Your task to perform on an android device: Open the phone app and click the voicemail tab. Image 0: 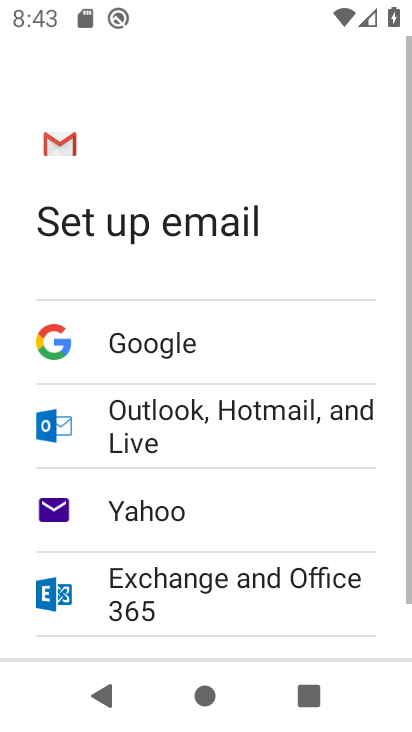
Step 0: press home button
Your task to perform on an android device: Open the phone app and click the voicemail tab. Image 1: 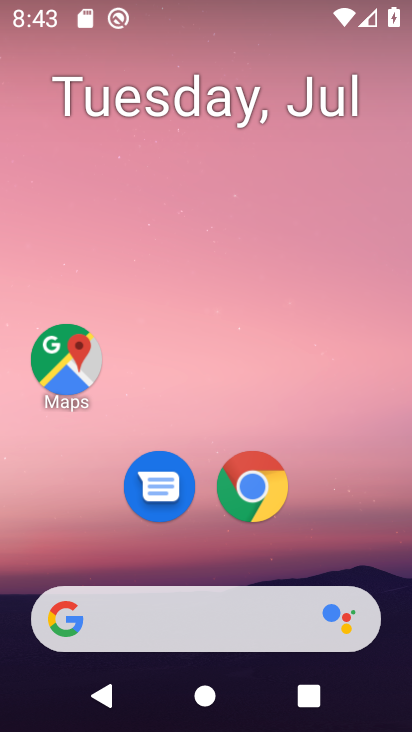
Step 1: drag from (254, 623) to (256, 16)
Your task to perform on an android device: Open the phone app and click the voicemail tab. Image 2: 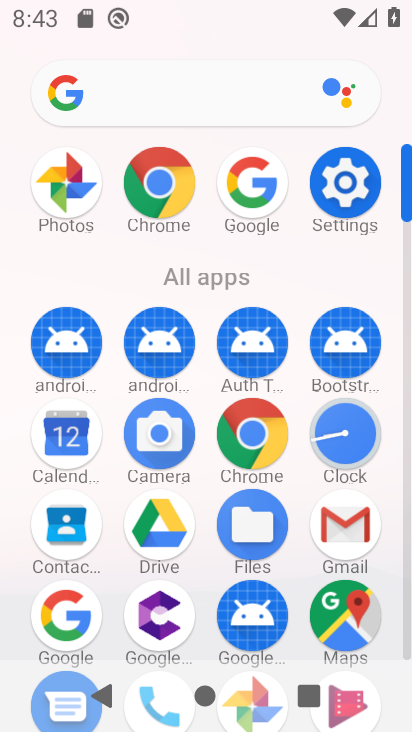
Step 2: drag from (296, 520) to (263, 210)
Your task to perform on an android device: Open the phone app and click the voicemail tab. Image 3: 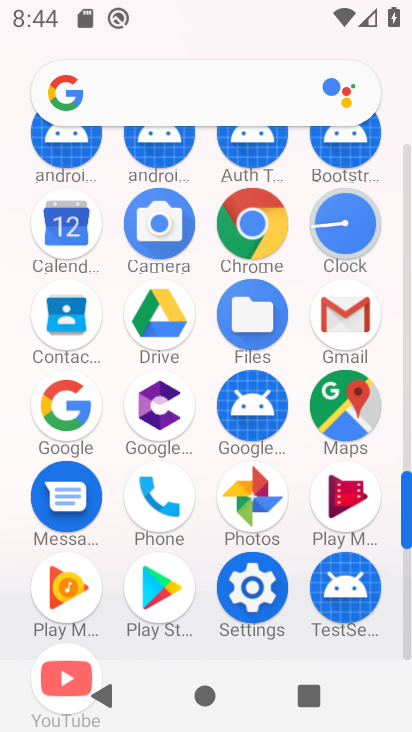
Step 3: click (152, 501)
Your task to perform on an android device: Open the phone app and click the voicemail tab. Image 4: 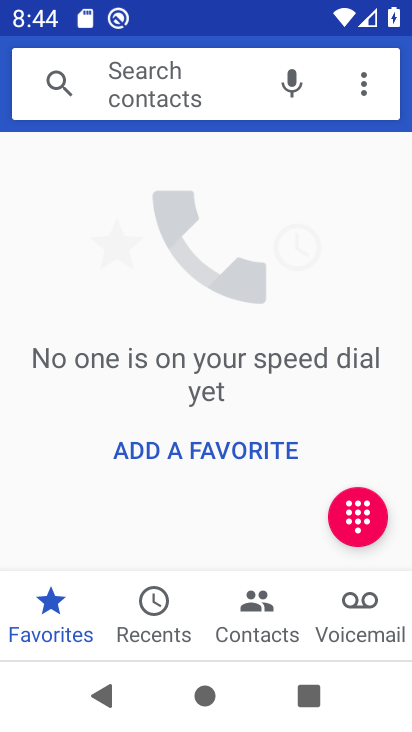
Step 4: click (366, 622)
Your task to perform on an android device: Open the phone app and click the voicemail tab. Image 5: 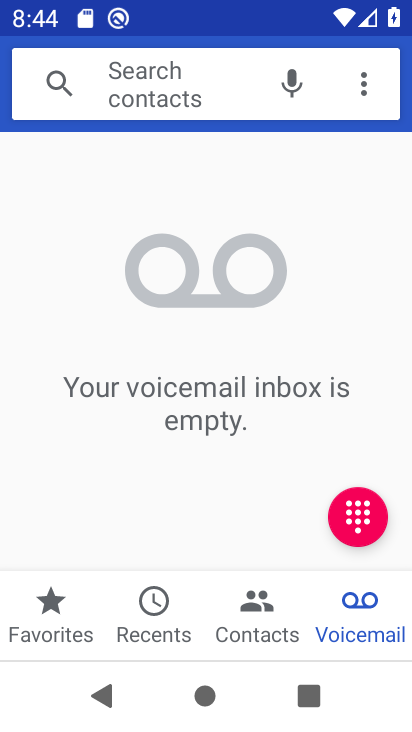
Step 5: task complete